Your task to perform on an android device: Find coffee shops on Maps Image 0: 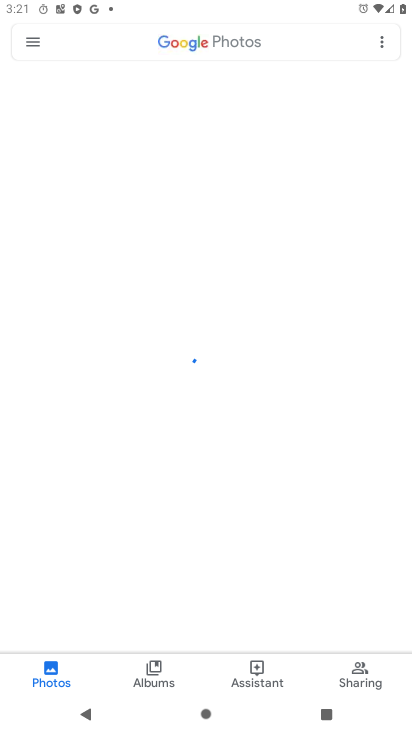
Step 0: press home button
Your task to perform on an android device: Find coffee shops on Maps Image 1: 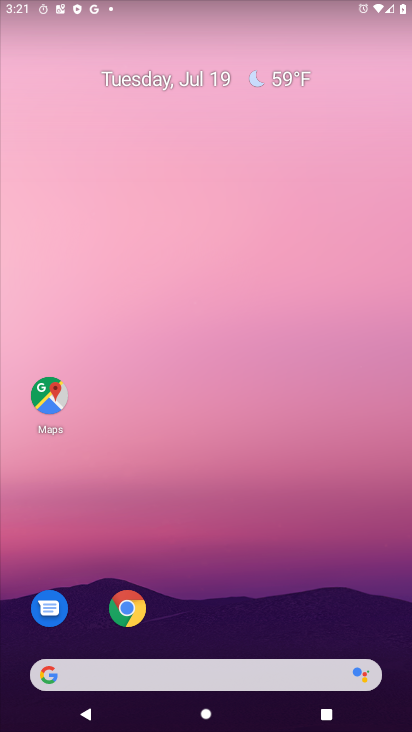
Step 1: click (48, 397)
Your task to perform on an android device: Find coffee shops on Maps Image 2: 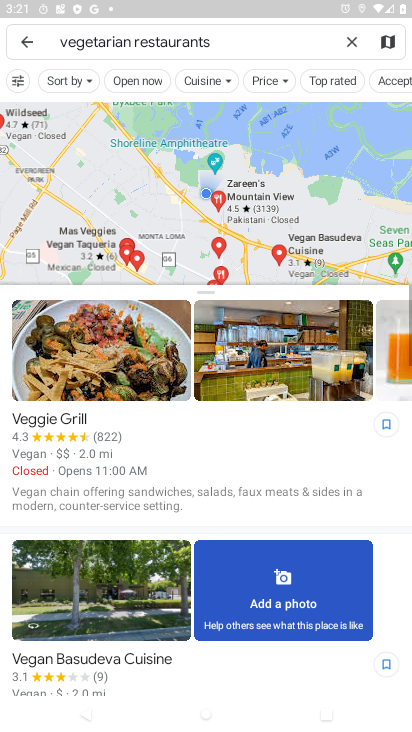
Step 2: click (355, 36)
Your task to perform on an android device: Find coffee shops on Maps Image 3: 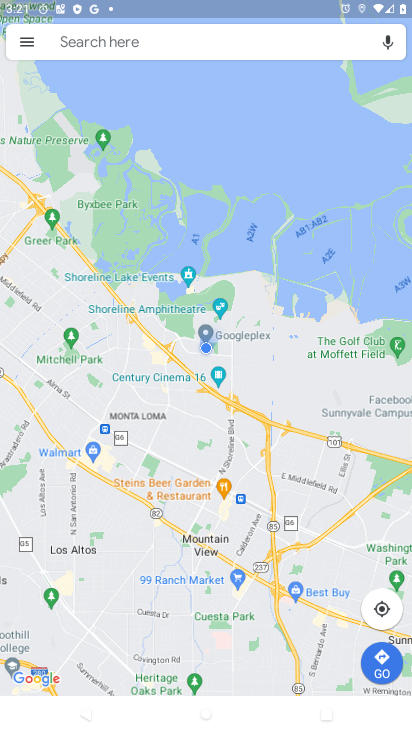
Step 3: click (136, 42)
Your task to perform on an android device: Find coffee shops on Maps Image 4: 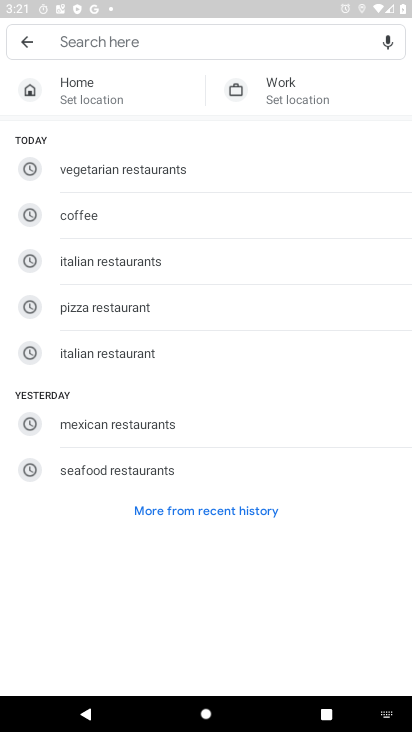
Step 4: click (127, 215)
Your task to perform on an android device: Find coffee shops on Maps Image 5: 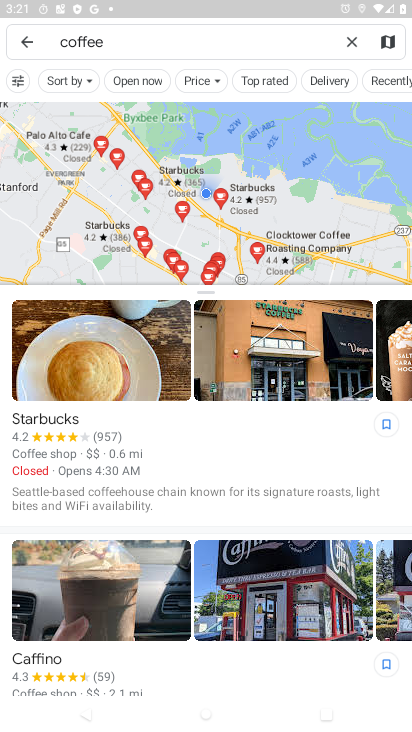
Step 5: task complete